Your task to perform on an android device: change timer sound Image 0: 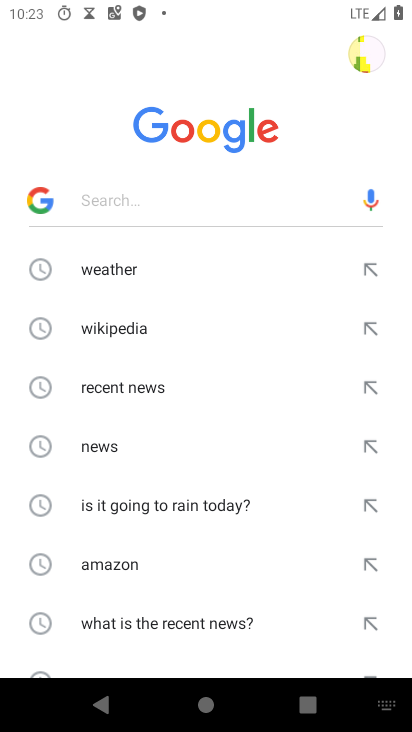
Step 0: press home button
Your task to perform on an android device: change timer sound Image 1: 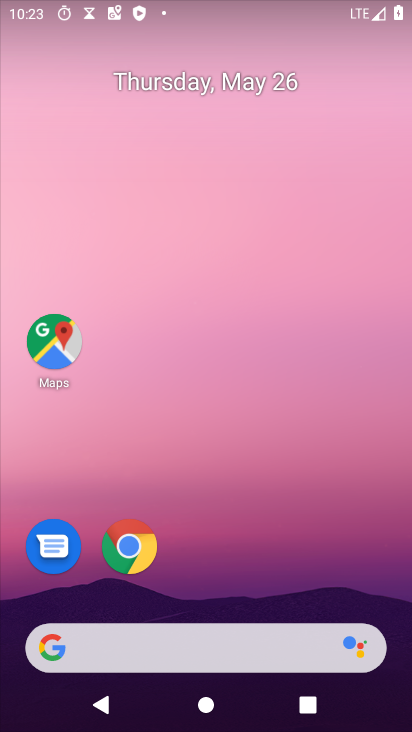
Step 1: drag from (266, 561) to (286, 116)
Your task to perform on an android device: change timer sound Image 2: 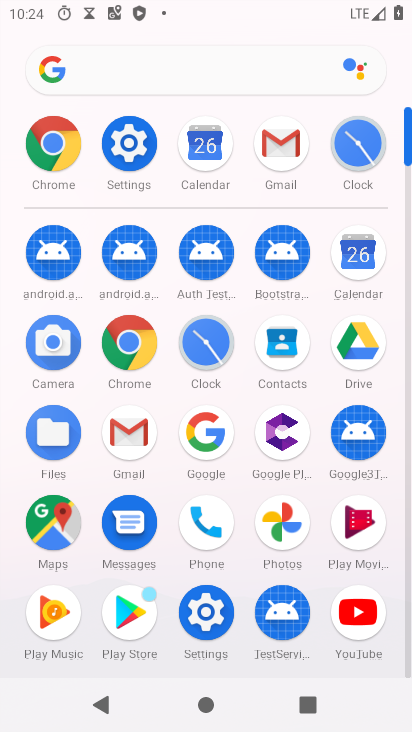
Step 2: click (201, 342)
Your task to perform on an android device: change timer sound Image 3: 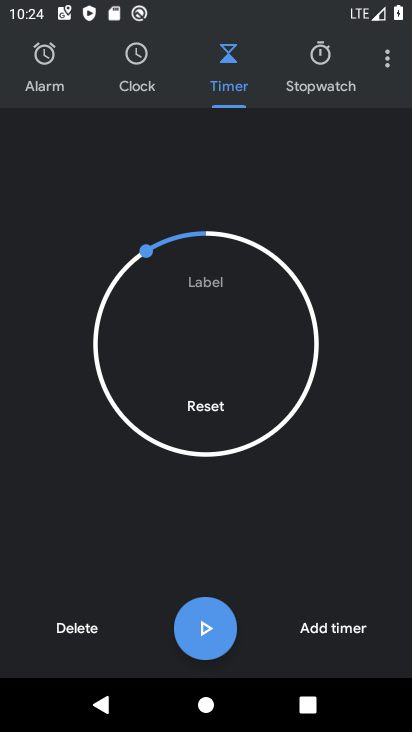
Step 3: drag from (392, 68) to (226, 120)
Your task to perform on an android device: change timer sound Image 4: 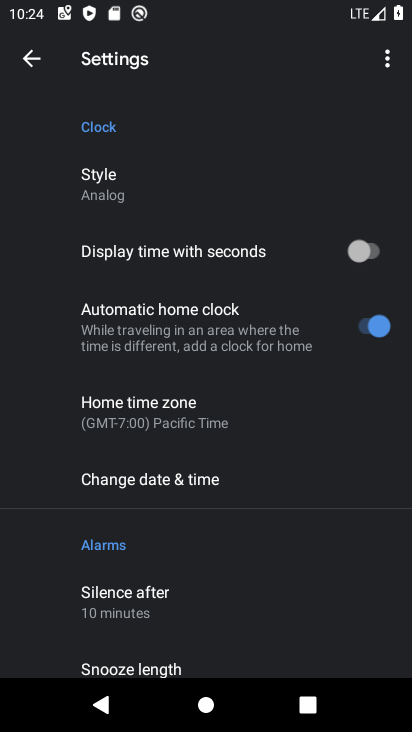
Step 4: click (248, 287)
Your task to perform on an android device: change timer sound Image 5: 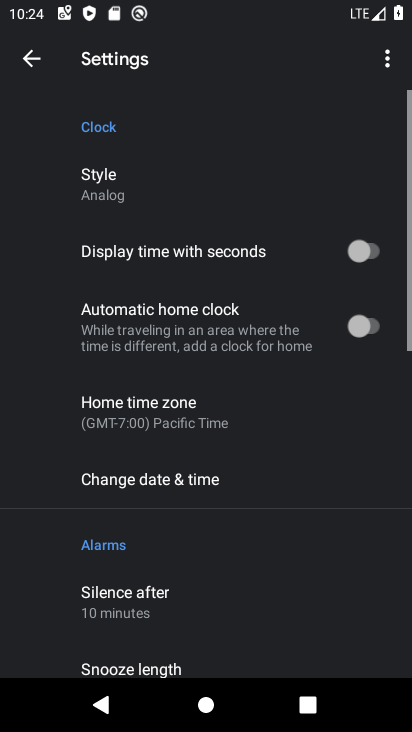
Step 5: drag from (255, 596) to (261, 261)
Your task to perform on an android device: change timer sound Image 6: 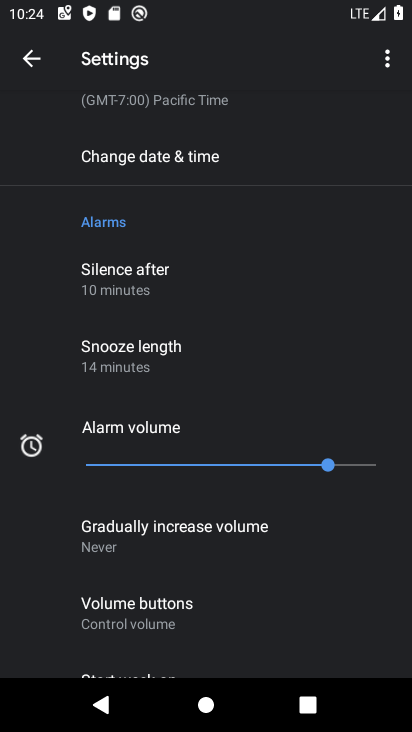
Step 6: drag from (271, 583) to (280, 284)
Your task to perform on an android device: change timer sound Image 7: 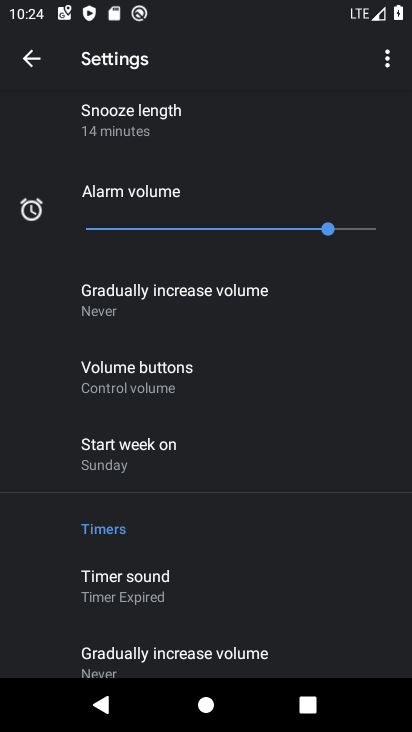
Step 7: click (197, 595)
Your task to perform on an android device: change timer sound Image 8: 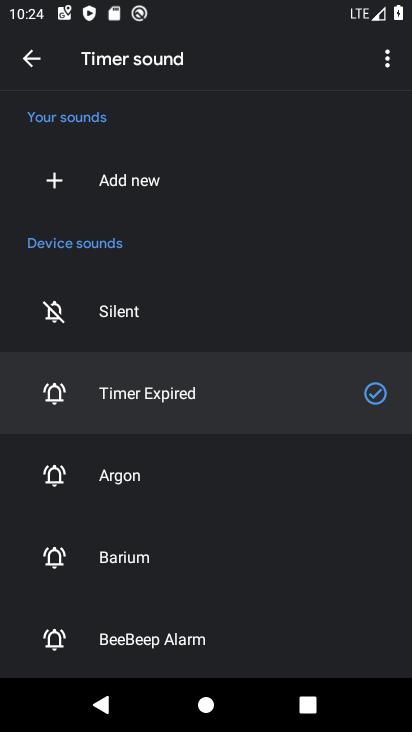
Step 8: click (180, 465)
Your task to perform on an android device: change timer sound Image 9: 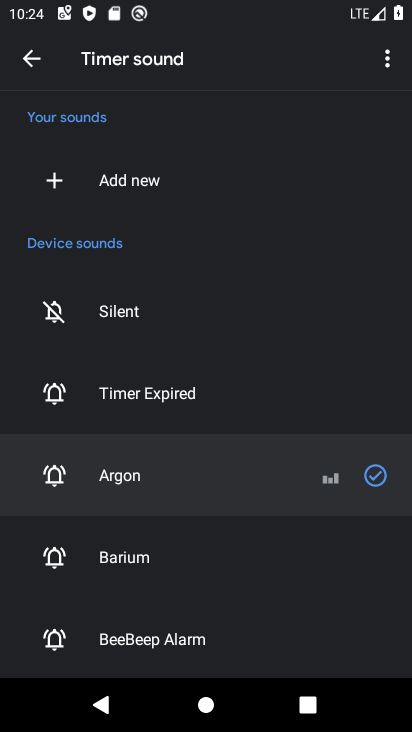
Step 9: task complete